Your task to perform on an android device: turn on notifications settings in the gmail app Image 0: 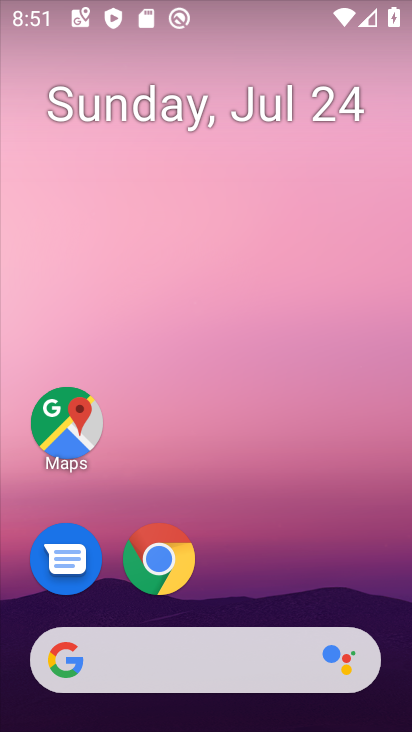
Step 0: drag from (262, 587) to (332, 51)
Your task to perform on an android device: turn on notifications settings in the gmail app Image 1: 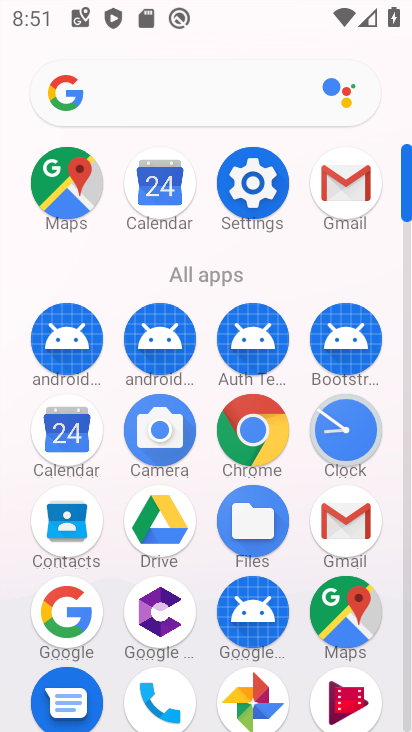
Step 1: click (338, 189)
Your task to perform on an android device: turn on notifications settings in the gmail app Image 2: 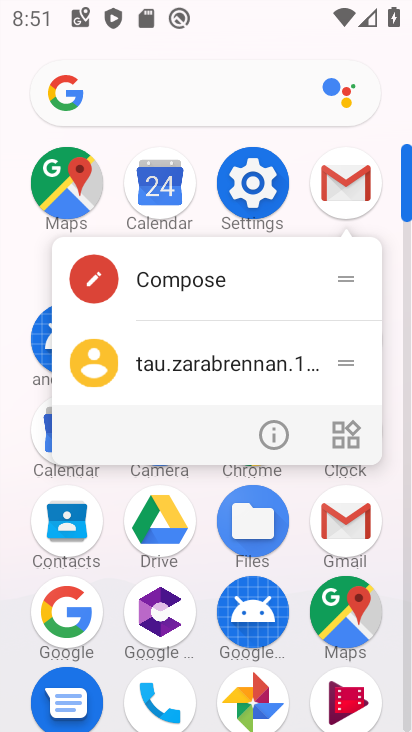
Step 2: click (283, 436)
Your task to perform on an android device: turn on notifications settings in the gmail app Image 3: 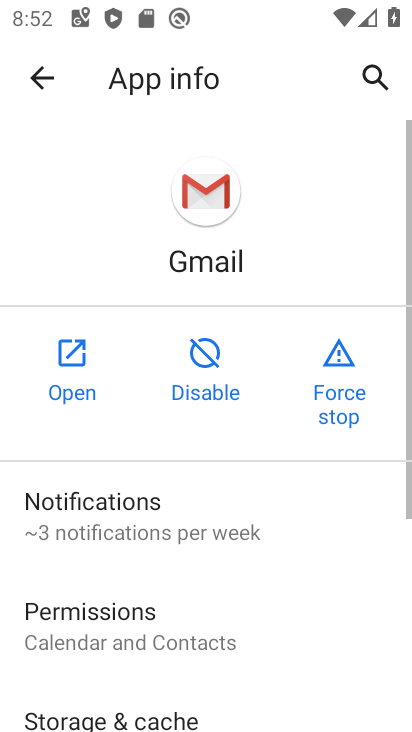
Step 3: click (103, 526)
Your task to perform on an android device: turn on notifications settings in the gmail app Image 4: 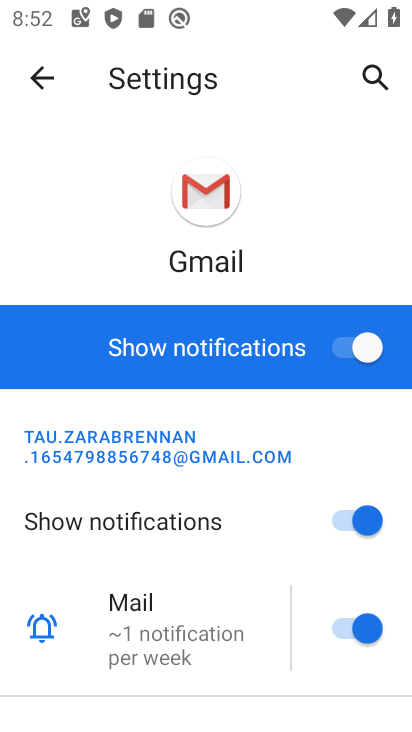
Step 4: task complete